Your task to perform on an android device: Open calendar and show me the third week of next month Image 0: 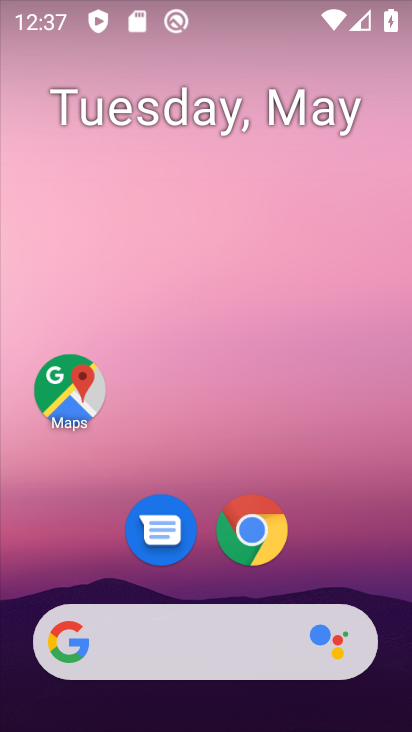
Step 0: drag from (362, 555) to (225, 48)
Your task to perform on an android device: Open calendar and show me the third week of next month Image 1: 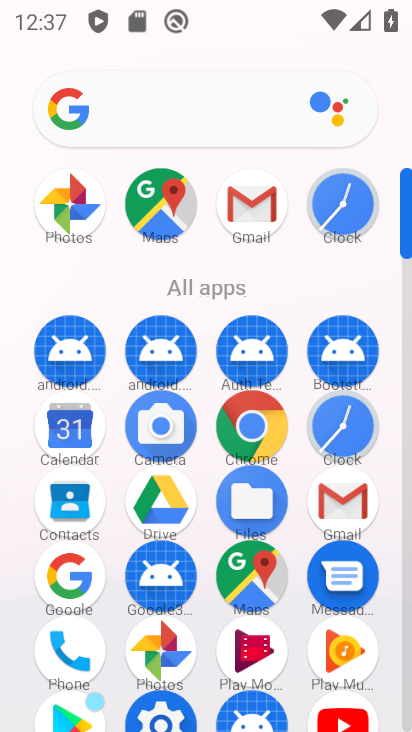
Step 1: click (72, 431)
Your task to perform on an android device: Open calendar and show me the third week of next month Image 2: 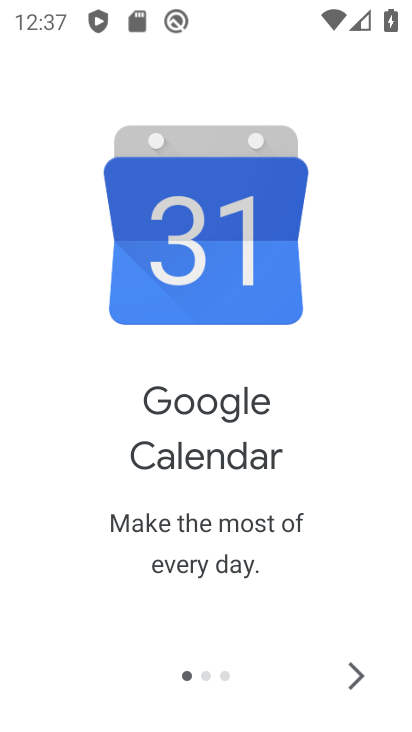
Step 2: click (359, 674)
Your task to perform on an android device: Open calendar and show me the third week of next month Image 3: 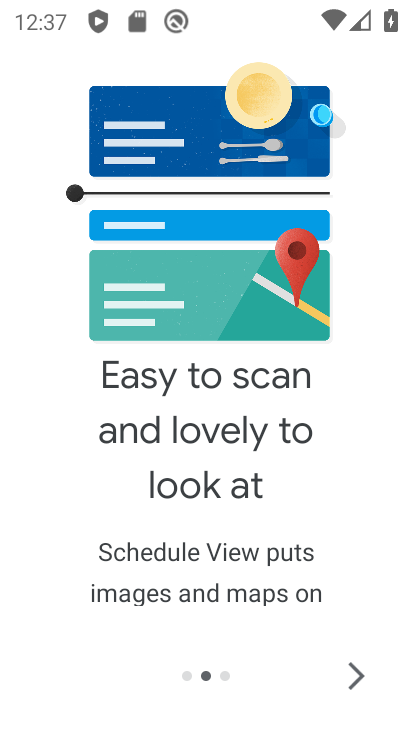
Step 3: click (359, 674)
Your task to perform on an android device: Open calendar and show me the third week of next month Image 4: 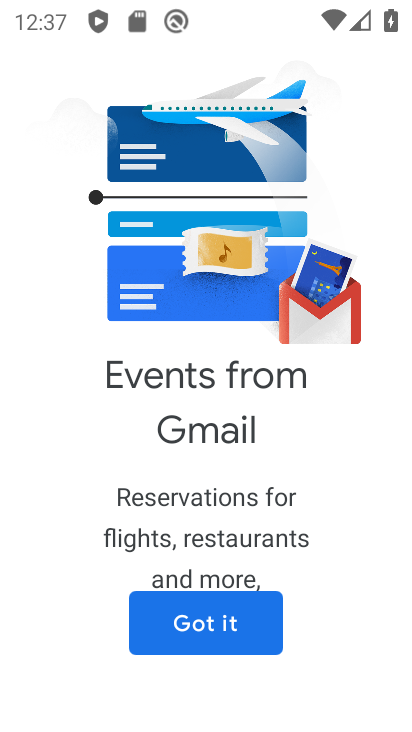
Step 4: click (238, 626)
Your task to perform on an android device: Open calendar and show me the third week of next month Image 5: 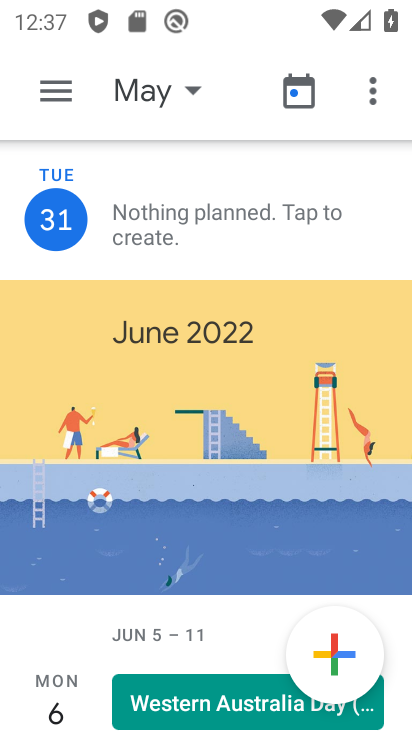
Step 5: click (191, 90)
Your task to perform on an android device: Open calendar and show me the third week of next month Image 6: 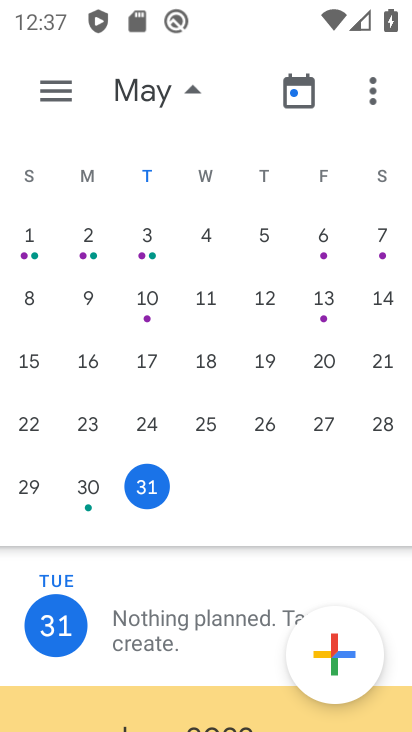
Step 6: drag from (352, 377) to (0, 339)
Your task to perform on an android device: Open calendar and show me the third week of next month Image 7: 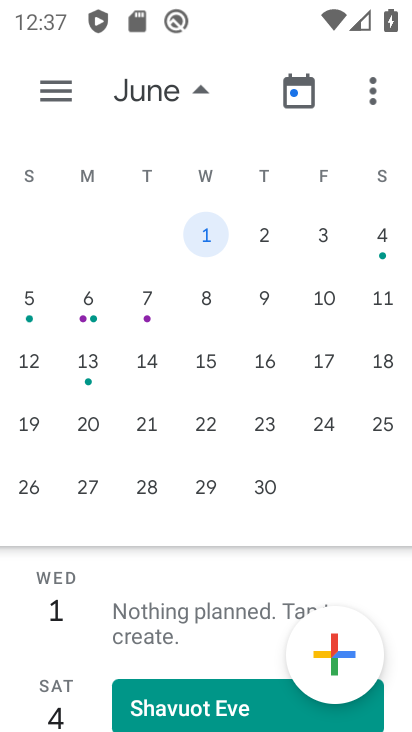
Step 7: click (89, 422)
Your task to perform on an android device: Open calendar and show me the third week of next month Image 8: 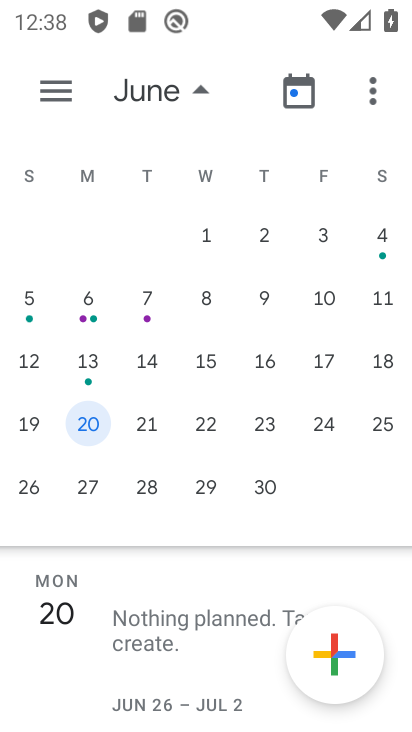
Step 8: click (57, 88)
Your task to perform on an android device: Open calendar and show me the third week of next month Image 9: 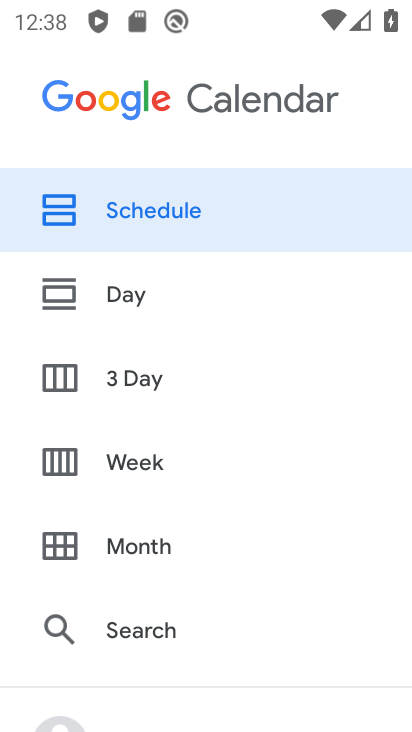
Step 9: click (126, 465)
Your task to perform on an android device: Open calendar and show me the third week of next month Image 10: 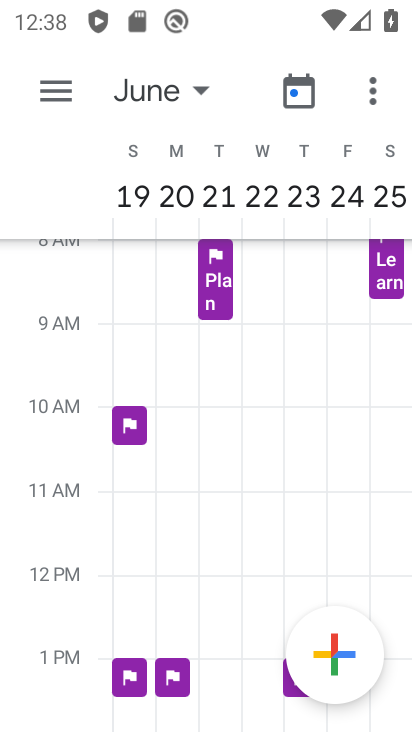
Step 10: task complete